Your task to perform on an android device: turn off data saver in the chrome app Image 0: 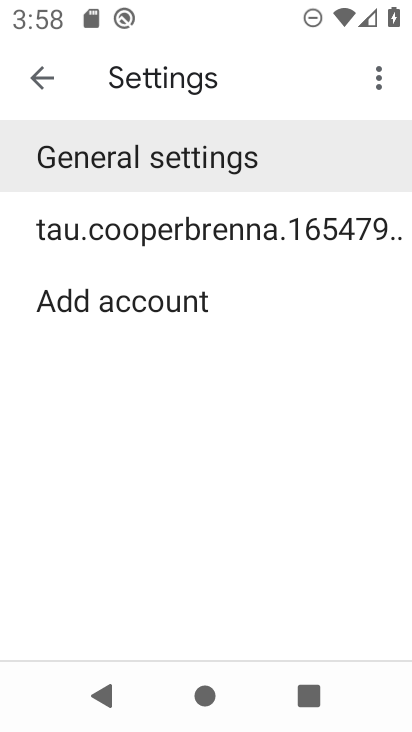
Step 0: press back button
Your task to perform on an android device: turn off data saver in the chrome app Image 1: 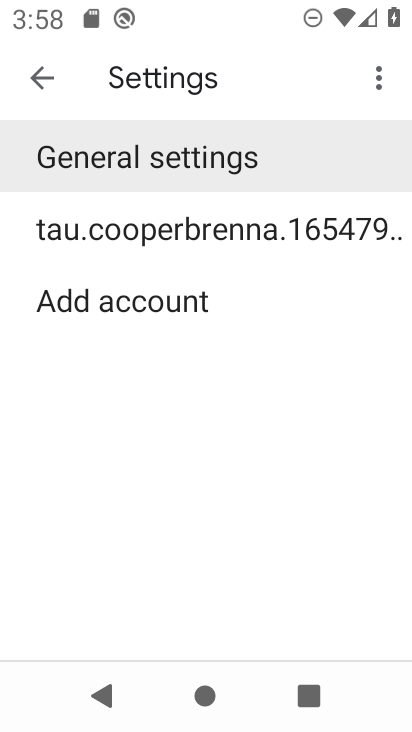
Step 1: press back button
Your task to perform on an android device: turn off data saver in the chrome app Image 2: 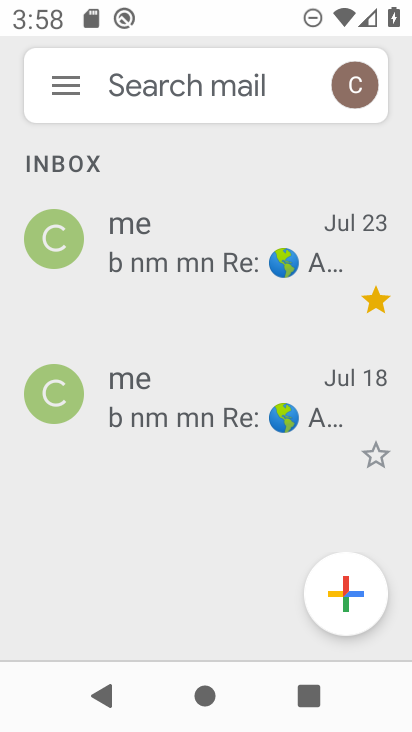
Step 2: press back button
Your task to perform on an android device: turn off data saver in the chrome app Image 3: 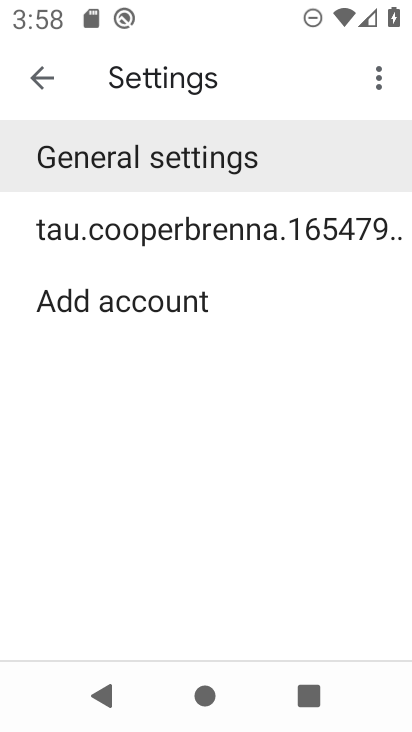
Step 3: press back button
Your task to perform on an android device: turn off data saver in the chrome app Image 4: 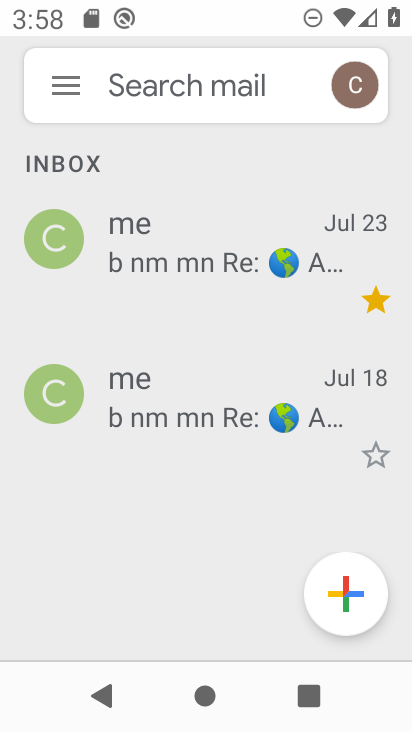
Step 4: press back button
Your task to perform on an android device: turn off data saver in the chrome app Image 5: 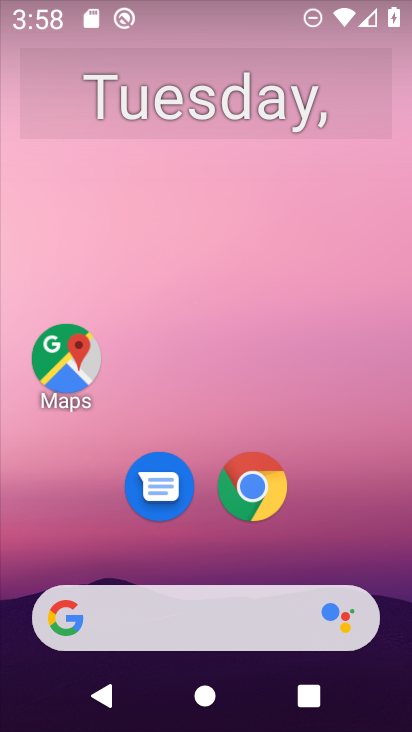
Step 5: click (258, 485)
Your task to perform on an android device: turn off data saver in the chrome app Image 6: 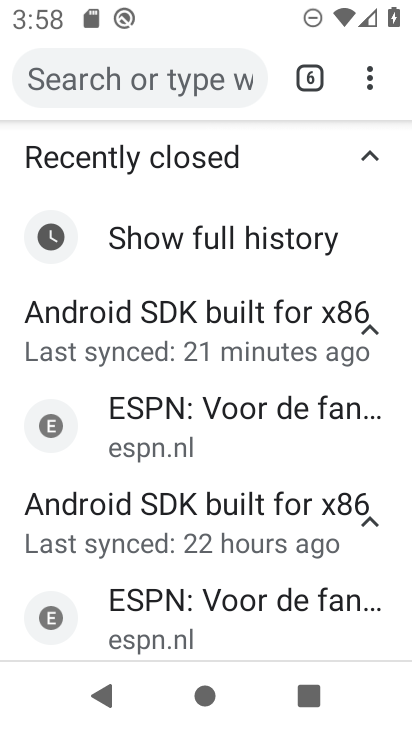
Step 6: drag from (372, 77) to (123, 547)
Your task to perform on an android device: turn off data saver in the chrome app Image 7: 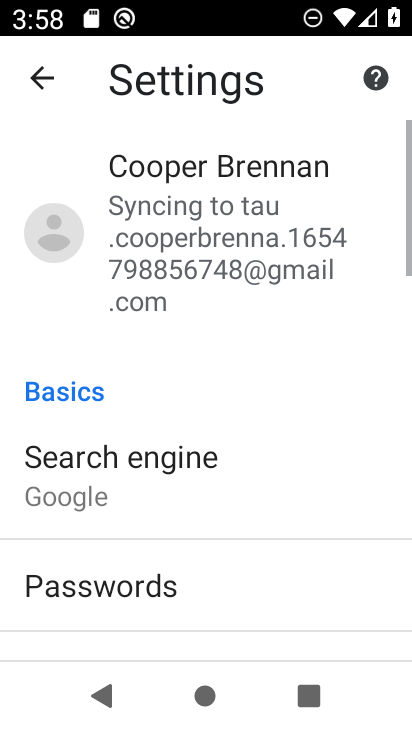
Step 7: drag from (142, 564) to (238, 53)
Your task to perform on an android device: turn off data saver in the chrome app Image 8: 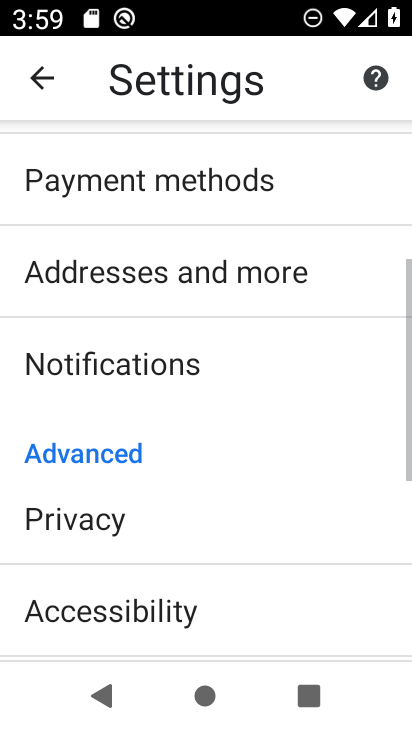
Step 8: drag from (148, 595) to (253, 148)
Your task to perform on an android device: turn off data saver in the chrome app Image 9: 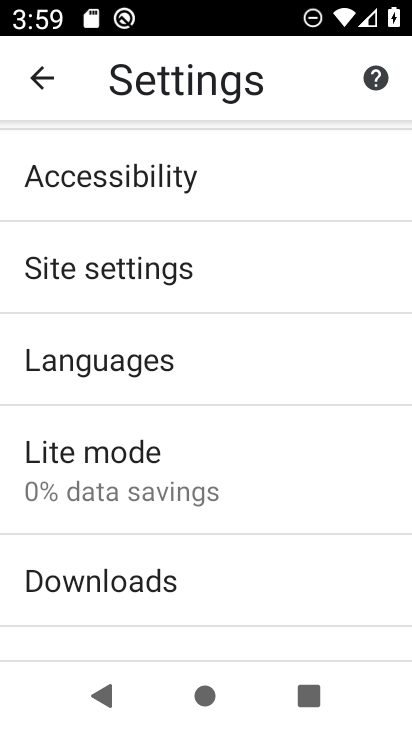
Step 9: click (116, 473)
Your task to perform on an android device: turn off data saver in the chrome app Image 10: 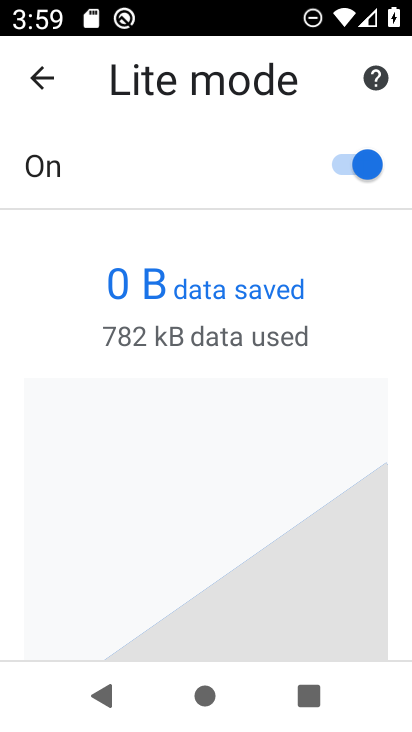
Step 10: click (361, 156)
Your task to perform on an android device: turn off data saver in the chrome app Image 11: 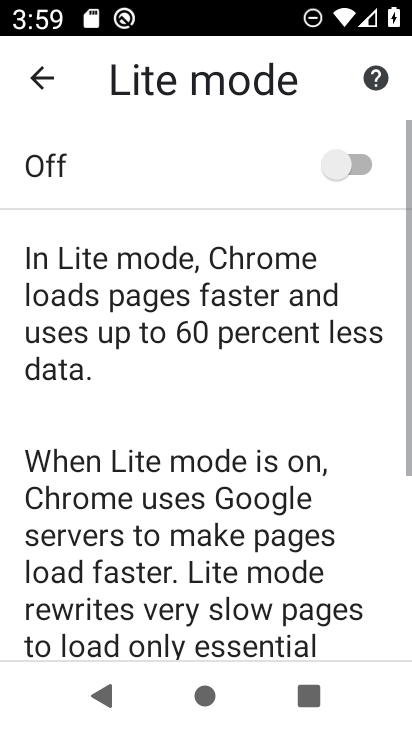
Step 11: task complete